Your task to perform on an android device: open device folders in google photos Image 0: 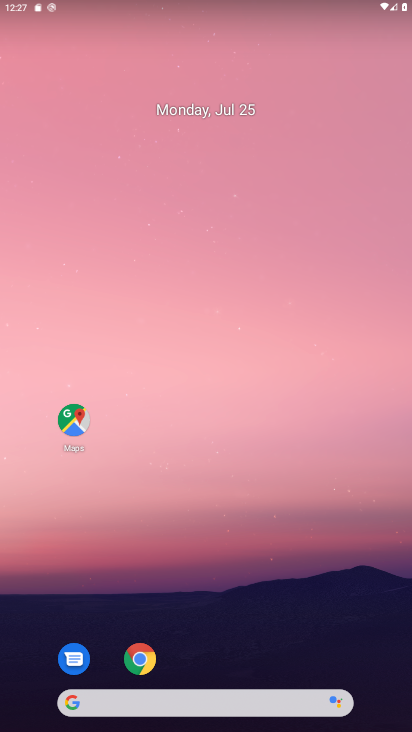
Step 0: drag from (219, 669) to (189, 33)
Your task to perform on an android device: open device folders in google photos Image 1: 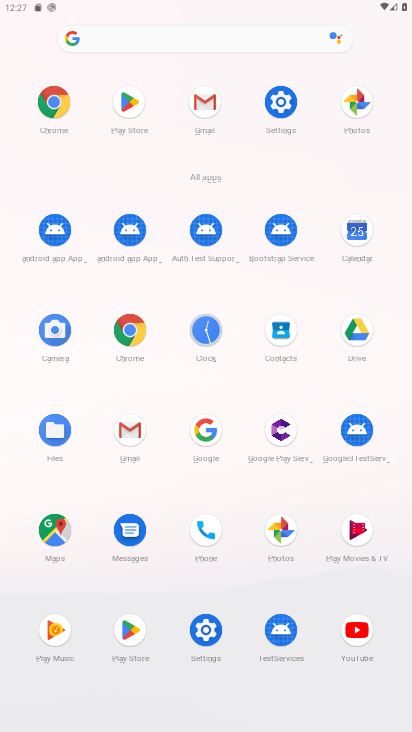
Step 1: click (280, 525)
Your task to perform on an android device: open device folders in google photos Image 2: 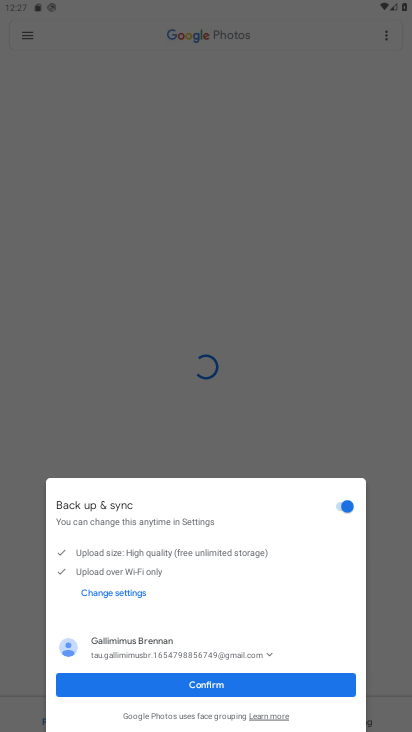
Step 2: click (211, 678)
Your task to perform on an android device: open device folders in google photos Image 3: 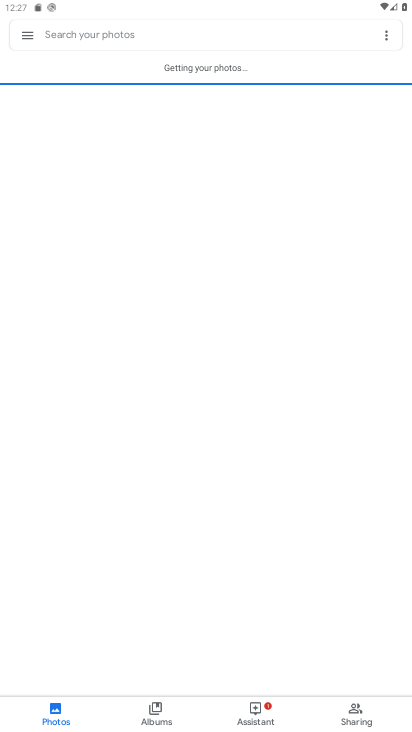
Step 3: click (28, 32)
Your task to perform on an android device: open device folders in google photos Image 4: 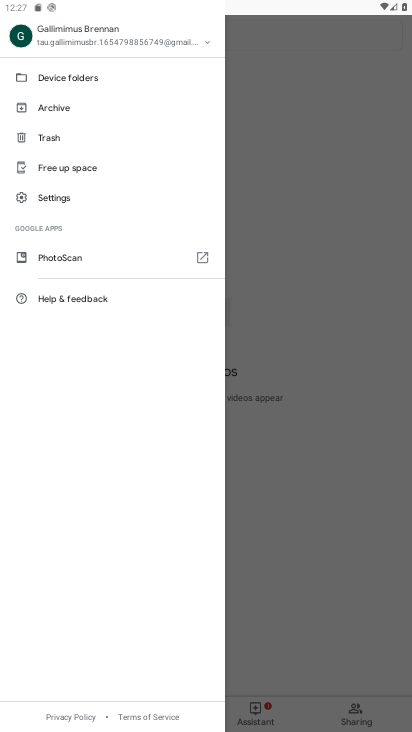
Step 4: click (88, 72)
Your task to perform on an android device: open device folders in google photos Image 5: 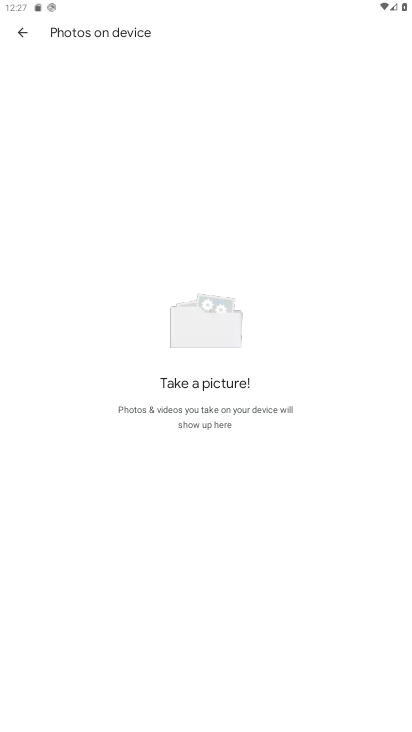
Step 5: task complete